Your task to perform on an android device: Open CNN.com Image 0: 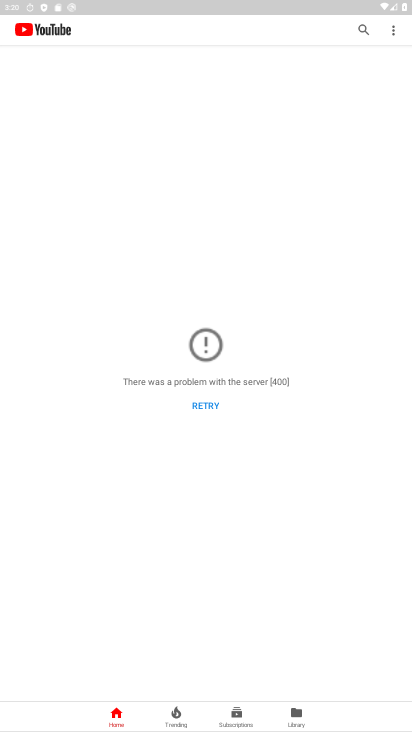
Step 0: press home button
Your task to perform on an android device: Open CNN.com Image 1: 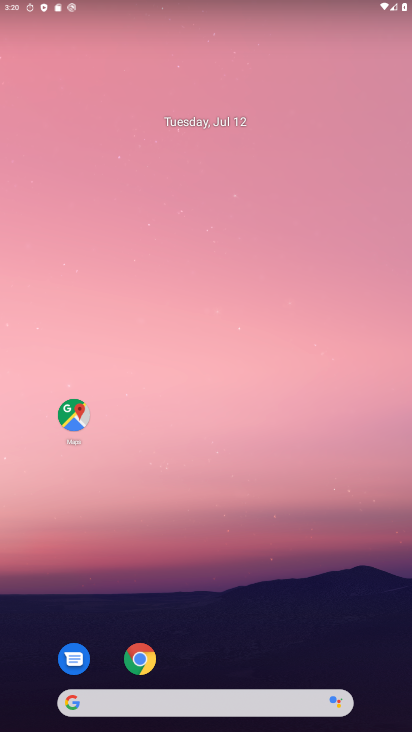
Step 1: click (133, 661)
Your task to perform on an android device: Open CNN.com Image 2: 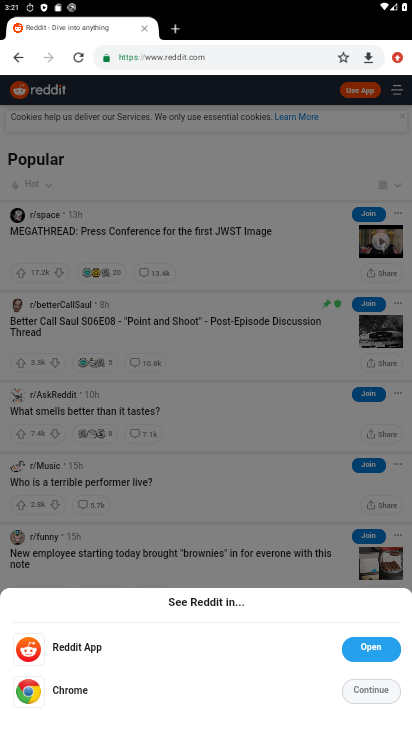
Step 2: click (199, 55)
Your task to perform on an android device: Open CNN.com Image 3: 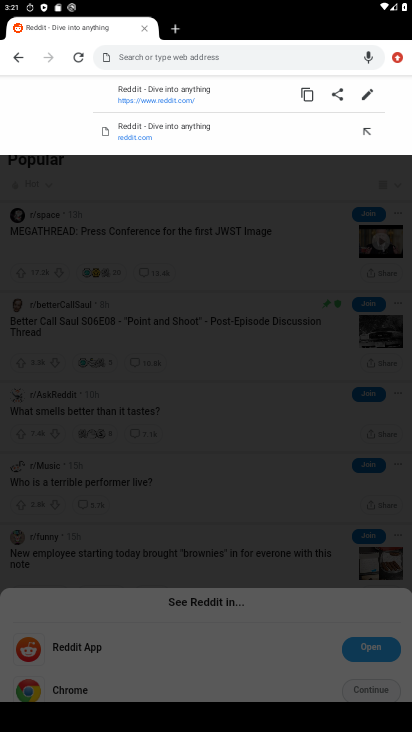
Step 3: type "cnn.com"
Your task to perform on an android device: Open CNN.com Image 4: 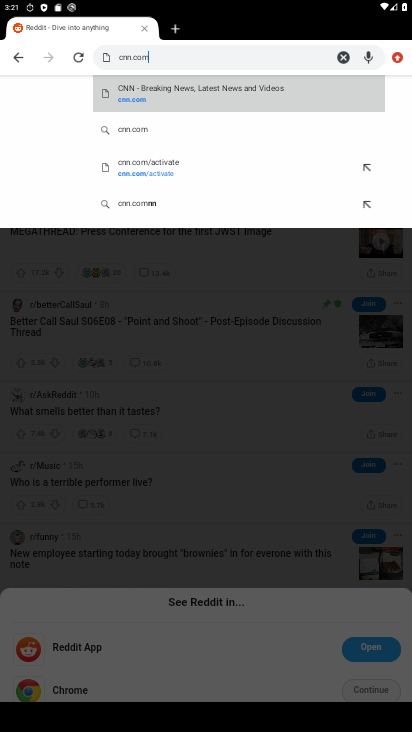
Step 4: click (256, 81)
Your task to perform on an android device: Open CNN.com Image 5: 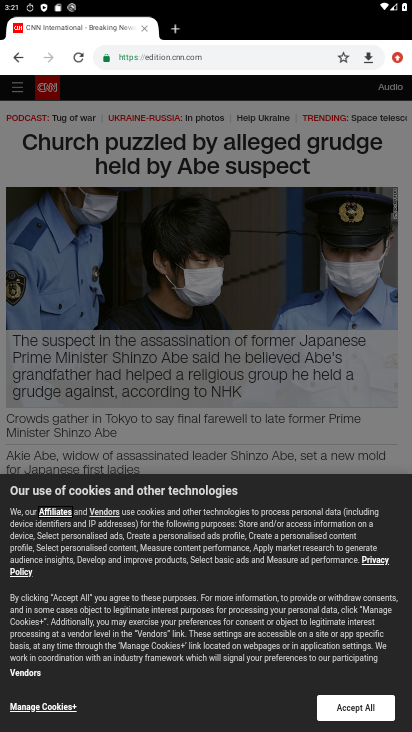
Step 5: task complete